Your task to perform on an android device: toggle pop-ups in chrome Image 0: 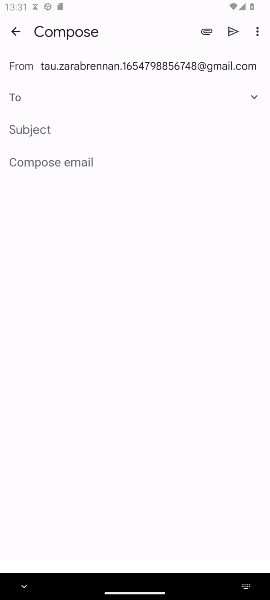
Step 0: press home button
Your task to perform on an android device: toggle pop-ups in chrome Image 1: 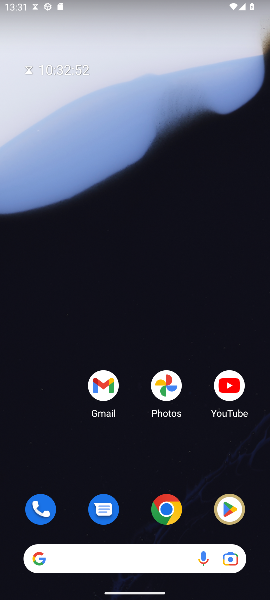
Step 1: click (166, 504)
Your task to perform on an android device: toggle pop-ups in chrome Image 2: 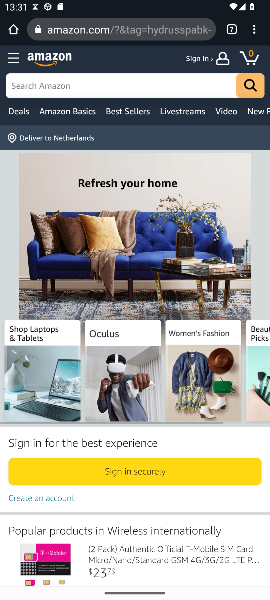
Step 2: drag from (255, 34) to (143, 377)
Your task to perform on an android device: toggle pop-ups in chrome Image 3: 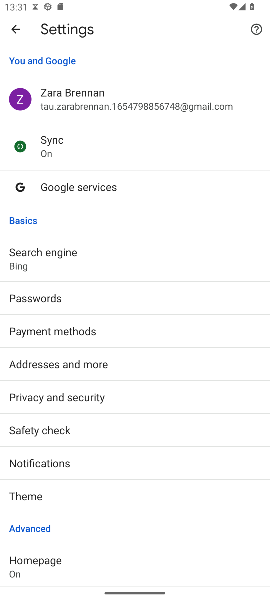
Step 3: drag from (121, 506) to (142, 150)
Your task to perform on an android device: toggle pop-ups in chrome Image 4: 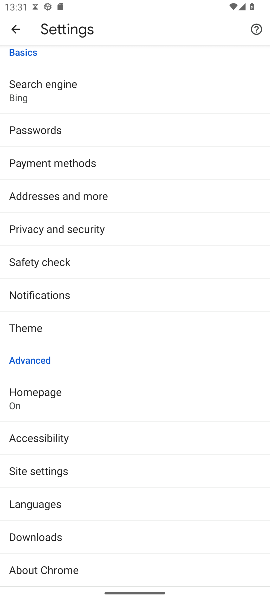
Step 4: click (38, 468)
Your task to perform on an android device: toggle pop-ups in chrome Image 5: 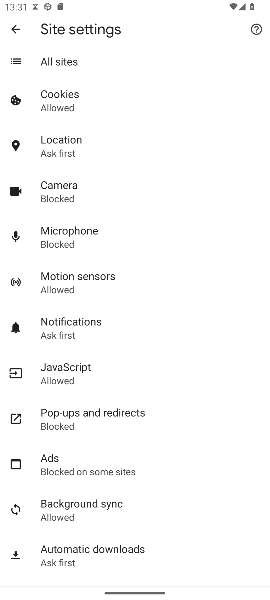
Step 5: click (89, 418)
Your task to perform on an android device: toggle pop-ups in chrome Image 6: 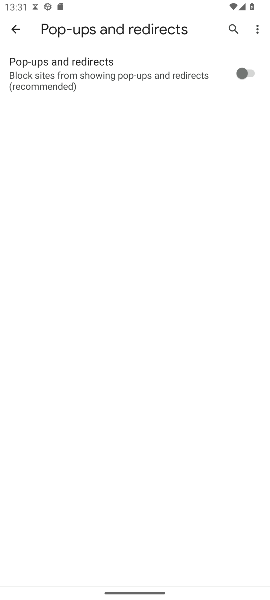
Step 6: click (240, 73)
Your task to perform on an android device: toggle pop-ups in chrome Image 7: 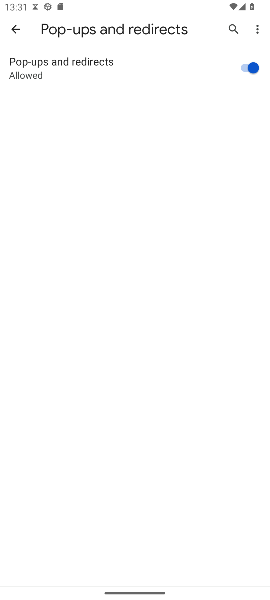
Step 7: task complete